Your task to perform on an android device: What's the weather? Image 0: 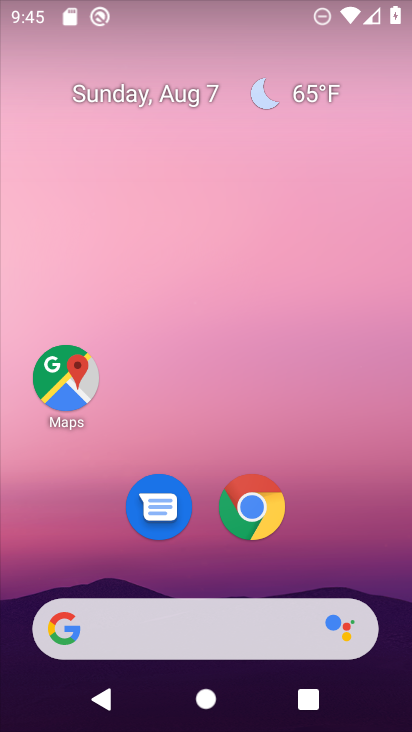
Step 0: drag from (364, 339) to (315, 393)
Your task to perform on an android device: What's the weather? Image 1: 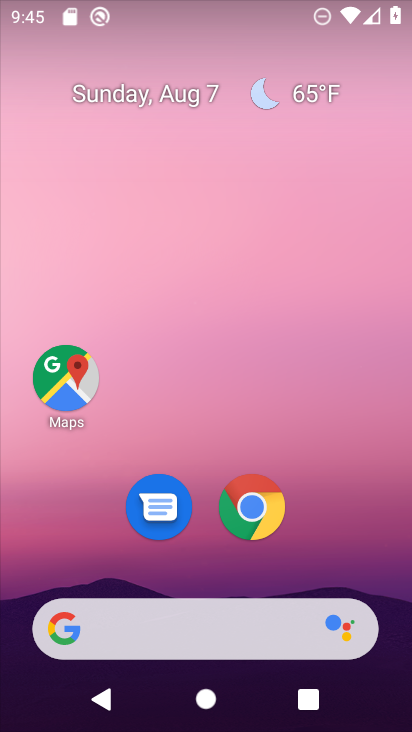
Step 1: click (314, 85)
Your task to perform on an android device: What's the weather? Image 2: 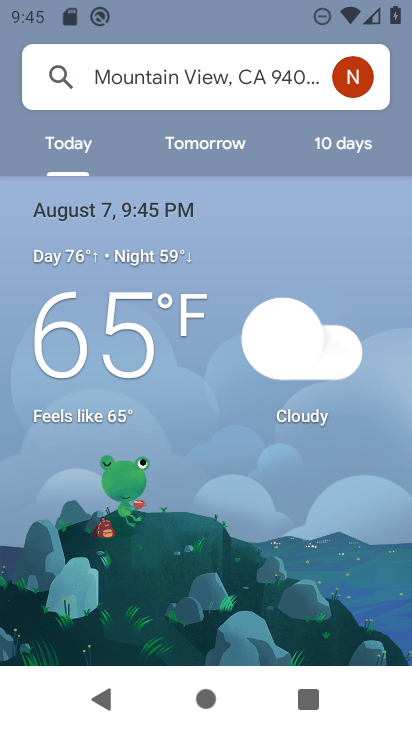
Step 2: task complete